Your task to perform on an android device: change the clock style Image 0: 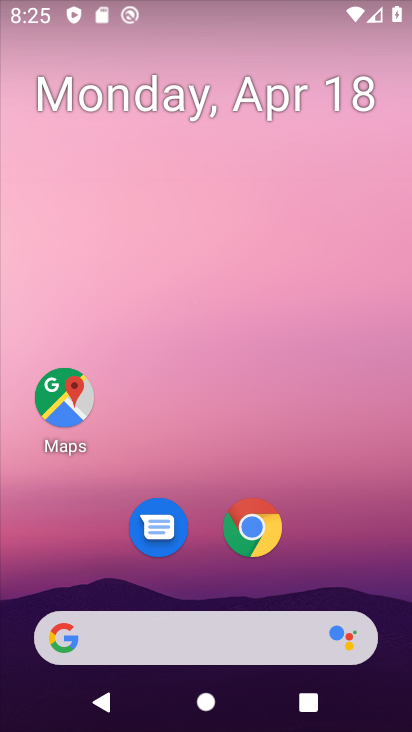
Step 0: drag from (350, 560) to (353, 54)
Your task to perform on an android device: change the clock style Image 1: 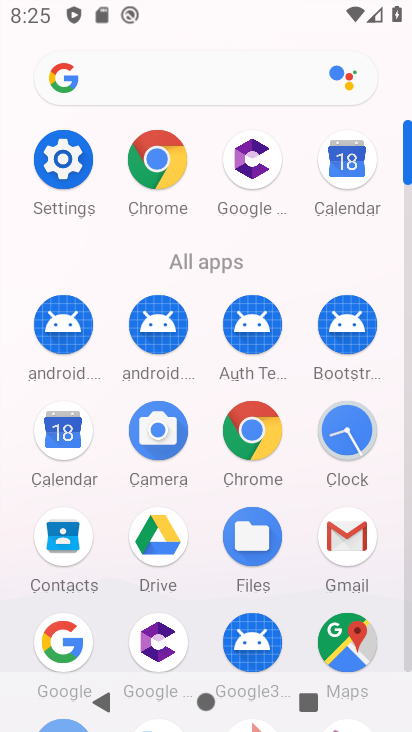
Step 1: click (347, 438)
Your task to perform on an android device: change the clock style Image 2: 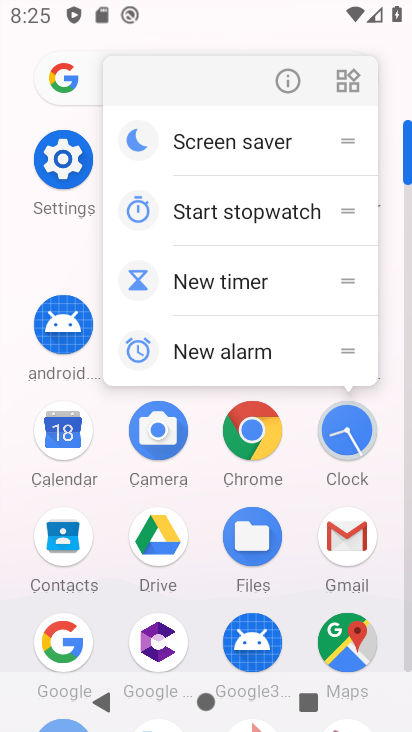
Step 2: press back button
Your task to perform on an android device: change the clock style Image 3: 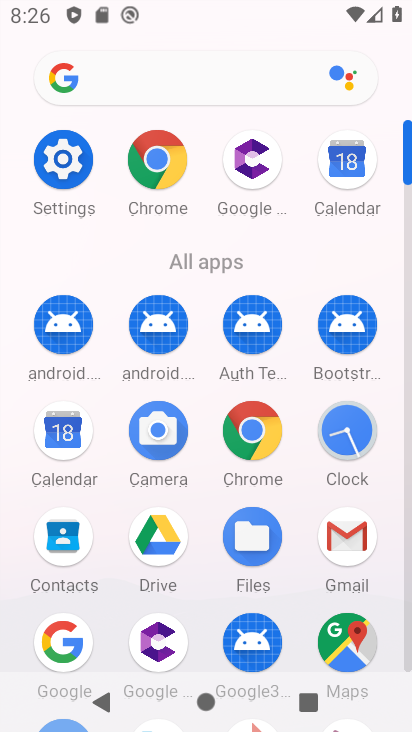
Step 3: click (357, 430)
Your task to perform on an android device: change the clock style Image 4: 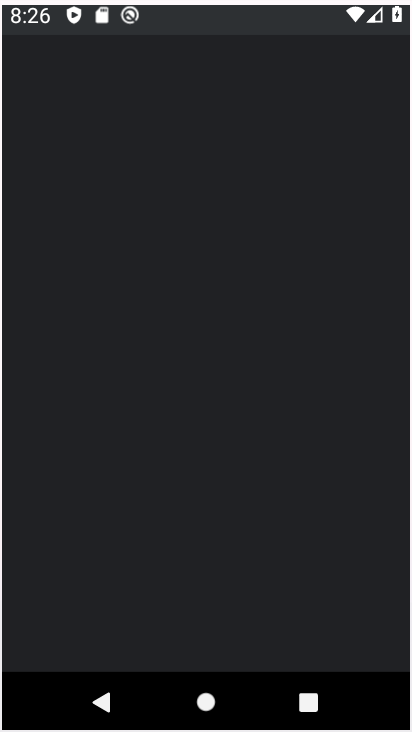
Step 4: click (357, 430)
Your task to perform on an android device: change the clock style Image 5: 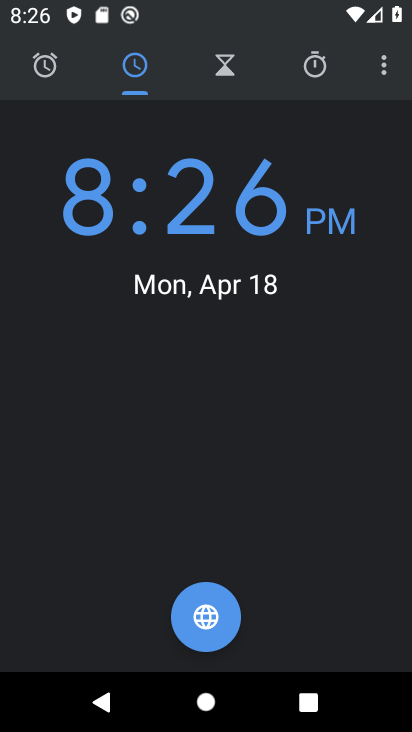
Step 5: click (357, 430)
Your task to perform on an android device: change the clock style Image 6: 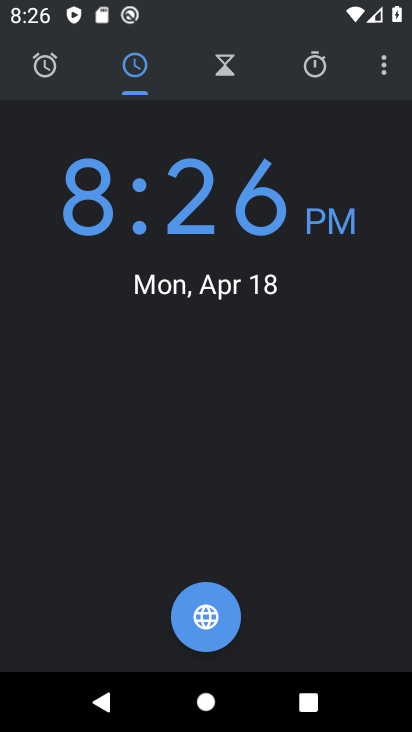
Step 6: click (388, 65)
Your task to perform on an android device: change the clock style Image 7: 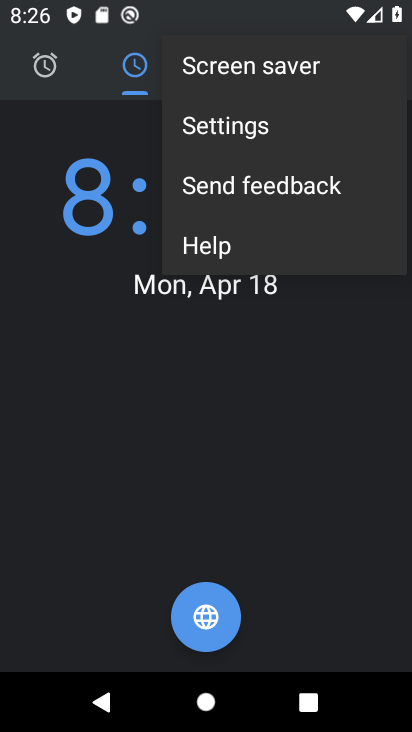
Step 7: click (230, 132)
Your task to perform on an android device: change the clock style Image 8: 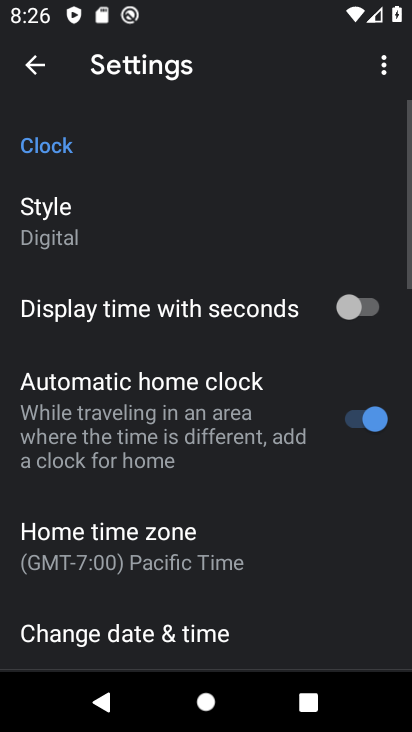
Step 8: click (70, 230)
Your task to perform on an android device: change the clock style Image 9: 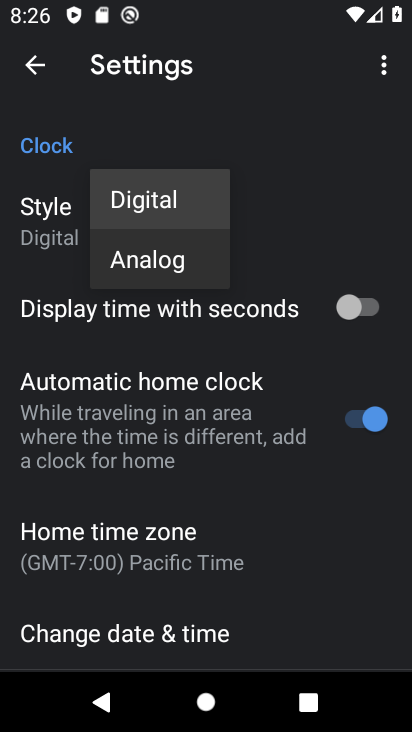
Step 9: click (144, 256)
Your task to perform on an android device: change the clock style Image 10: 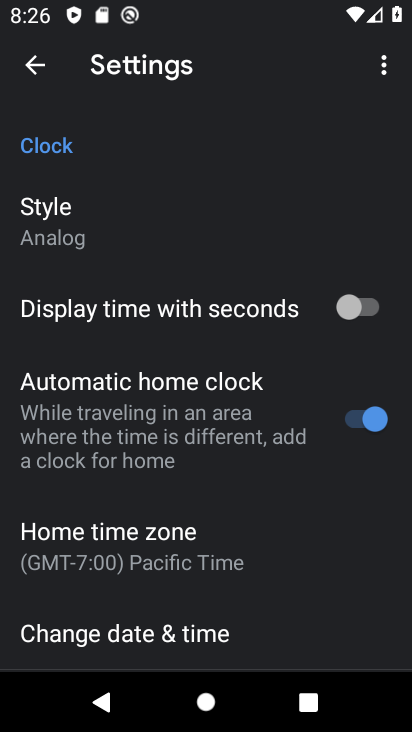
Step 10: task complete